Your task to perform on an android device: Turn on the flashlight Image 0: 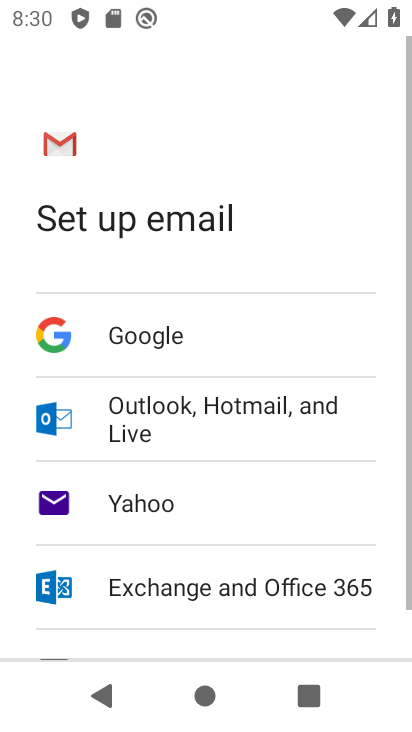
Step 0: press home button
Your task to perform on an android device: Turn on the flashlight Image 1: 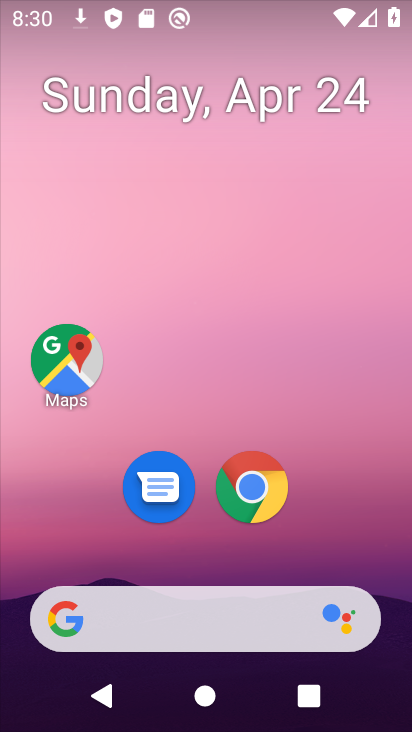
Step 1: drag from (336, 550) to (335, 122)
Your task to perform on an android device: Turn on the flashlight Image 2: 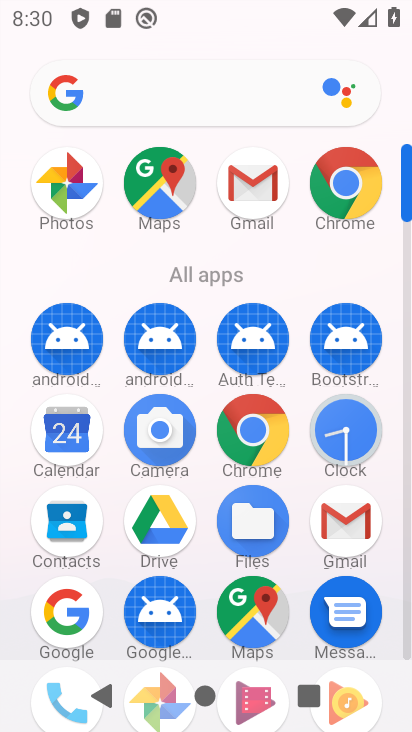
Step 2: drag from (203, 635) to (201, 261)
Your task to perform on an android device: Turn on the flashlight Image 3: 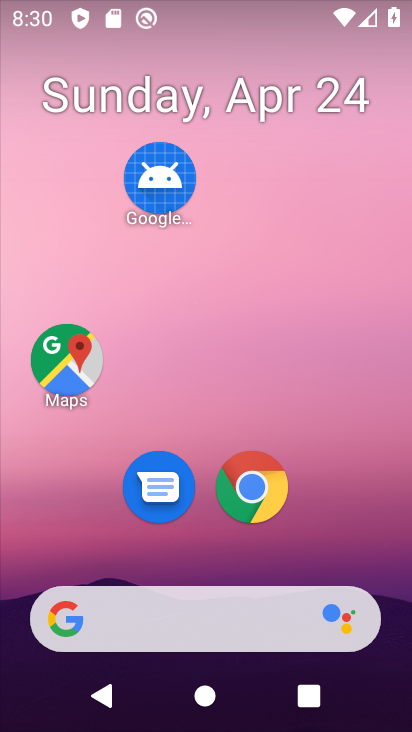
Step 3: drag from (353, 544) to (302, 134)
Your task to perform on an android device: Turn on the flashlight Image 4: 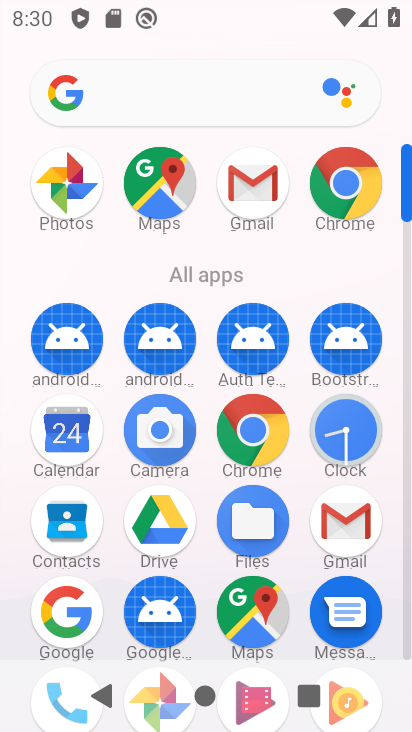
Step 4: drag from (407, 211) to (407, 129)
Your task to perform on an android device: Turn on the flashlight Image 5: 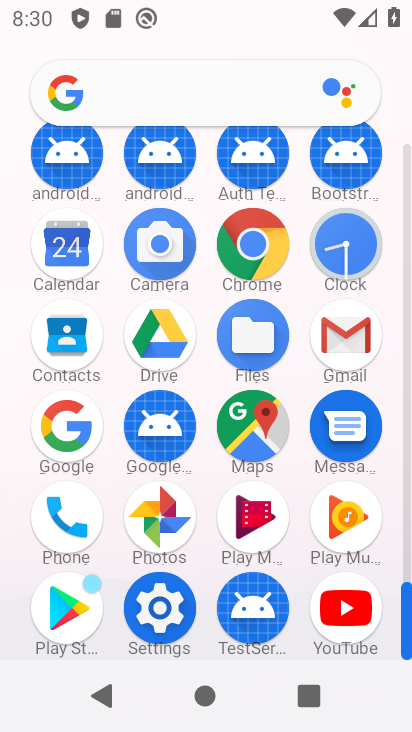
Step 5: click (169, 614)
Your task to perform on an android device: Turn on the flashlight Image 6: 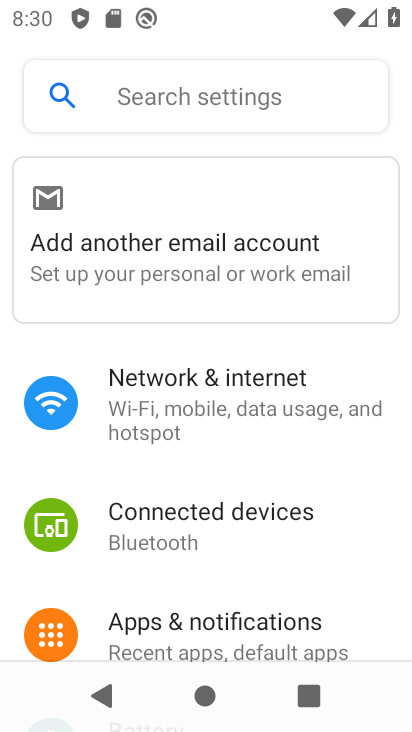
Step 6: click (192, 95)
Your task to perform on an android device: Turn on the flashlight Image 7: 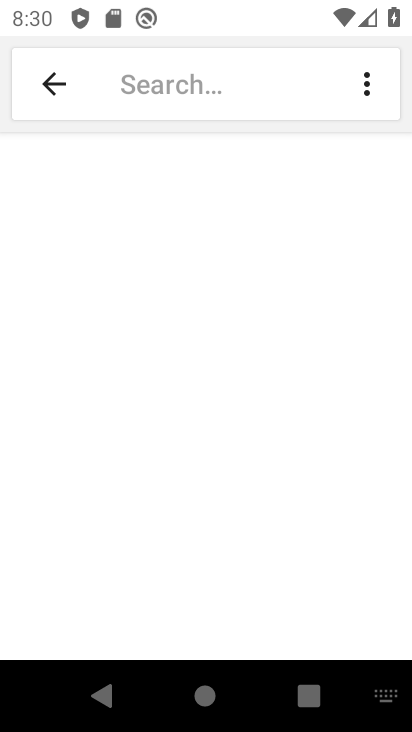
Step 7: type "flashlight"
Your task to perform on an android device: Turn on the flashlight Image 8: 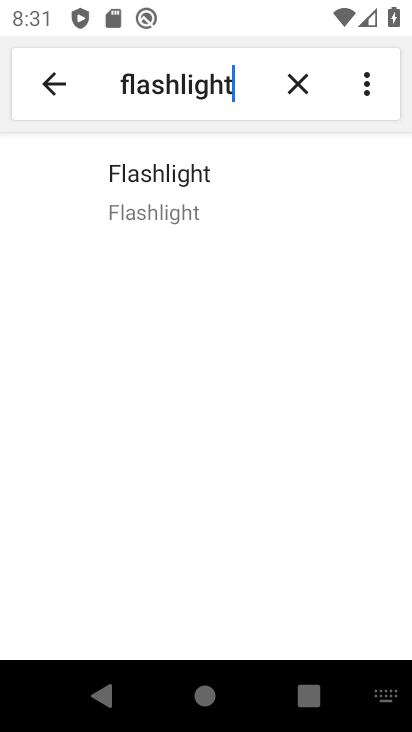
Step 8: click (175, 174)
Your task to perform on an android device: Turn on the flashlight Image 9: 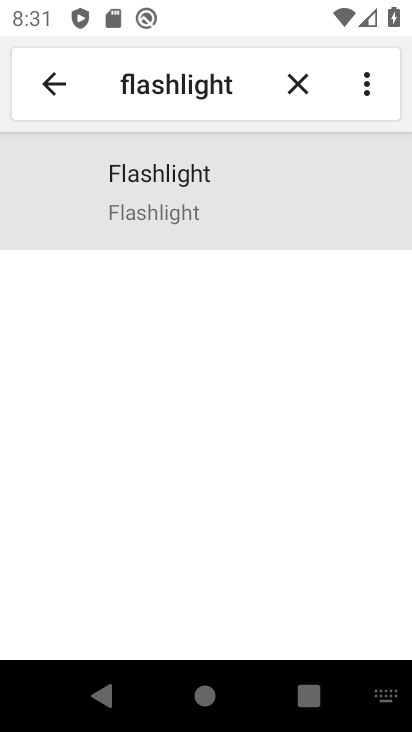
Step 9: click (177, 192)
Your task to perform on an android device: Turn on the flashlight Image 10: 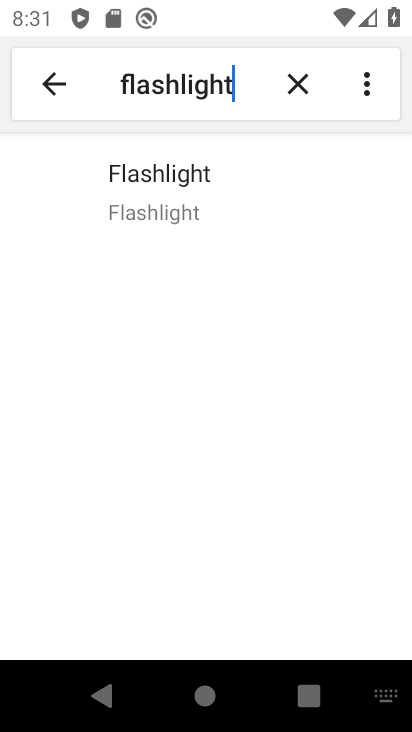
Step 10: click (175, 202)
Your task to perform on an android device: Turn on the flashlight Image 11: 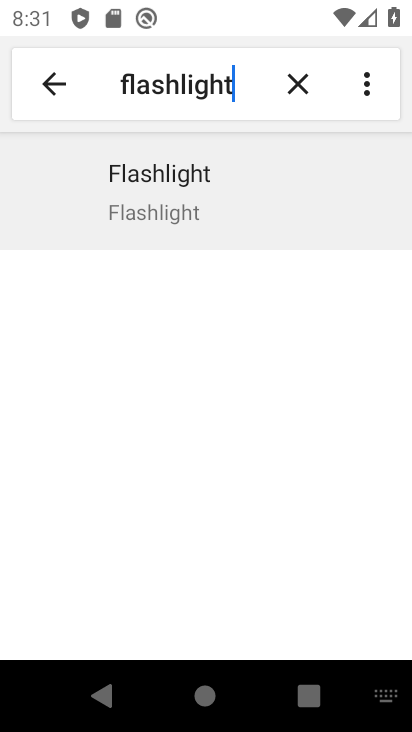
Step 11: click (175, 202)
Your task to perform on an android device: Turn on the flashlight Image 12: 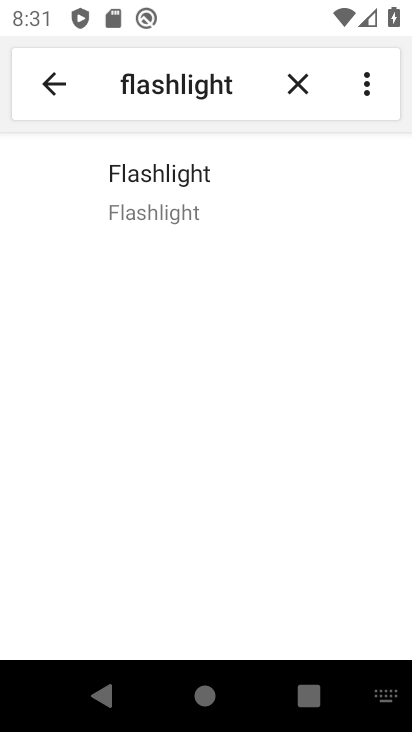
Step 12: task complete